Your task to perform on an android device: toggle translation in the chrome app Image 0: 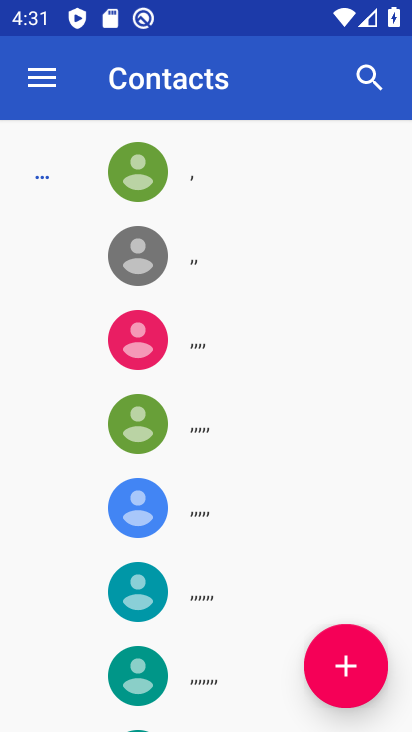
Step 0: press home button
Your task to perform on an android device: toggle translation in the chrome app Image 1: 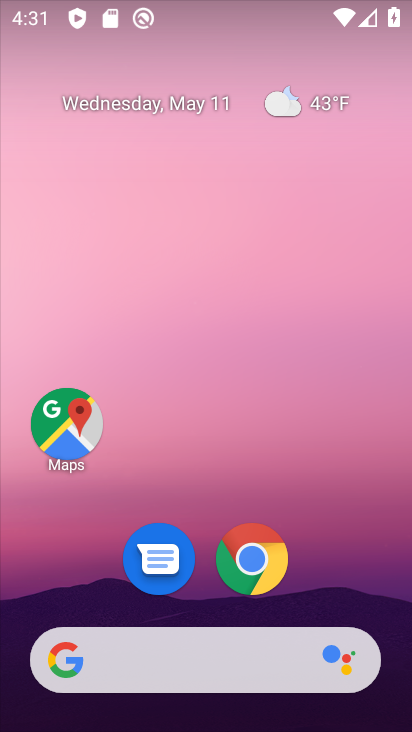
Step 1: click (266, 594)
Your task to perform on an android device: toggle translation in the chrome app Image 2: 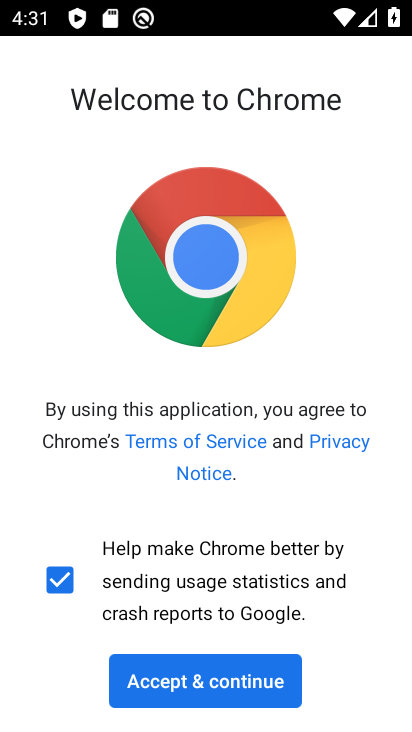
Step 2: click (193, 684)
Your task to perform on an android device: toggle translation in the chrome app Image 3: 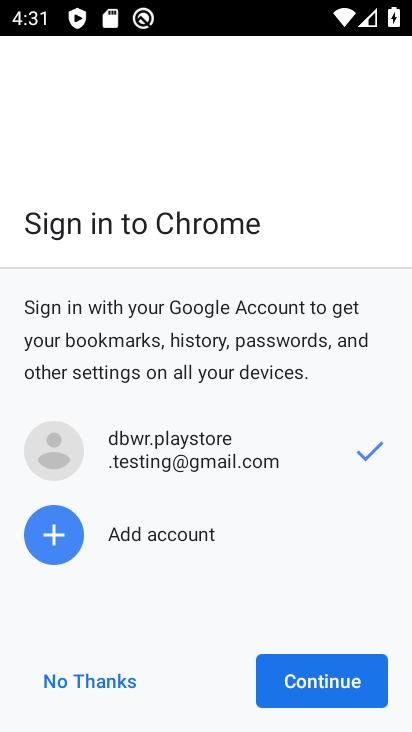
Step 3: click (279, 676)
Your task to perform on an android device: toggle translation in the chrome app Image 4: 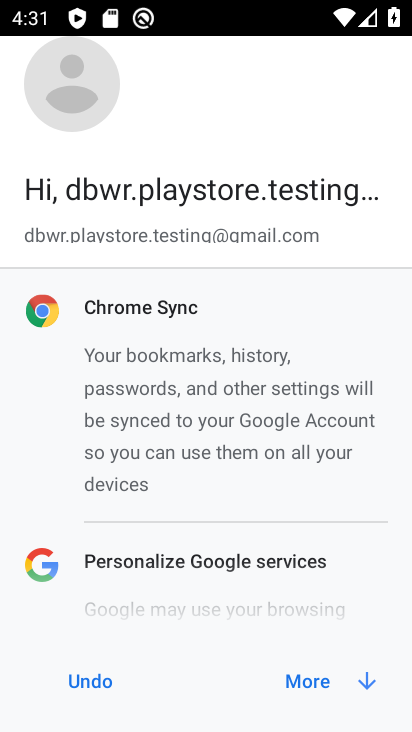
Step 4: click (301, 678)
Your task to perform on an android device: toggle translation in the chrome app Image 5: 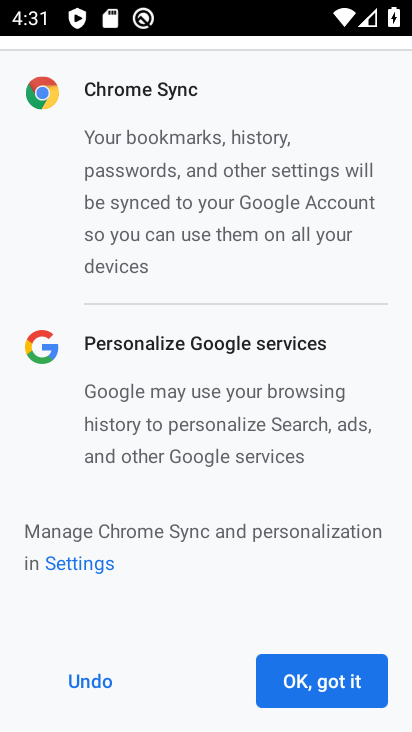
Step 5: click (301, 678)
Your task to perform on an android device: toggle translation in the chrome app Image 6: 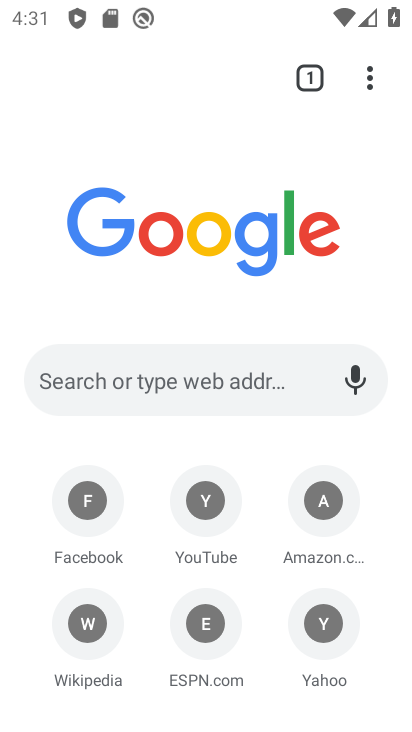
Step 6: click (374, 82)
Your task to perform on an android device: toggle translation in the chrome app Image 7: 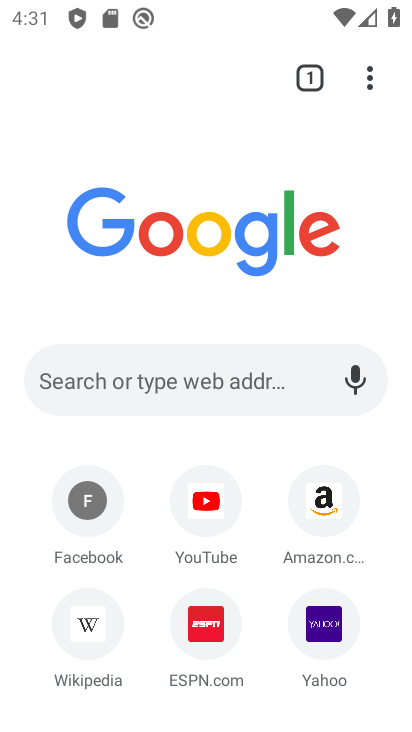
Step 7: click (368, 76)
Your task to perform on an android device: toggle translation in the chrome app Image 8: 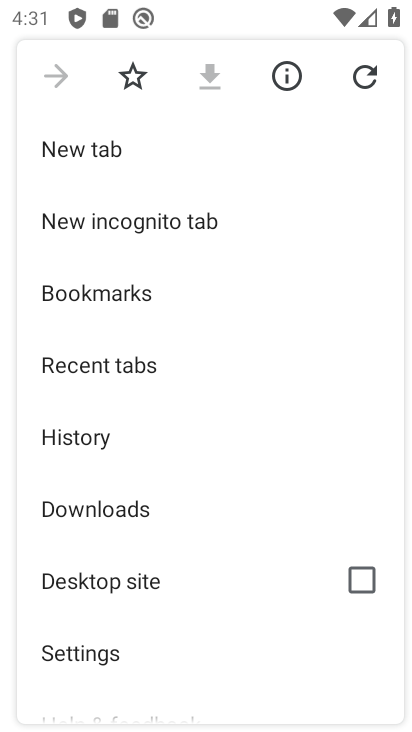
Step 8: drag from (192, 613) to (228, 403)
Your task to perform on an android device: toggle translation in the chrome app Image 9: 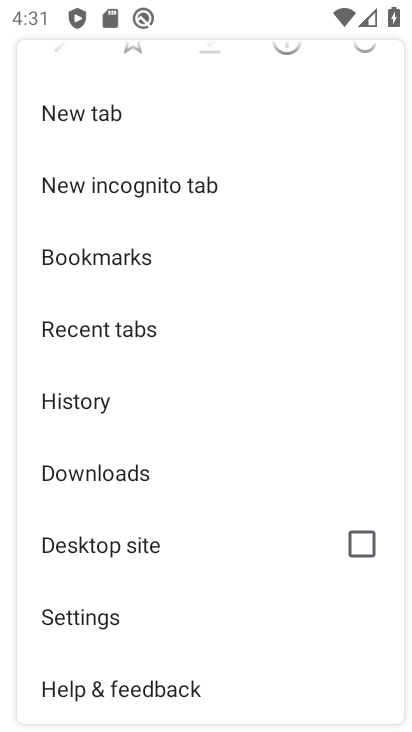
Step 9: click (79, 613)
Your task to perform on an android device: toggle translation in the chrome app Image 10: 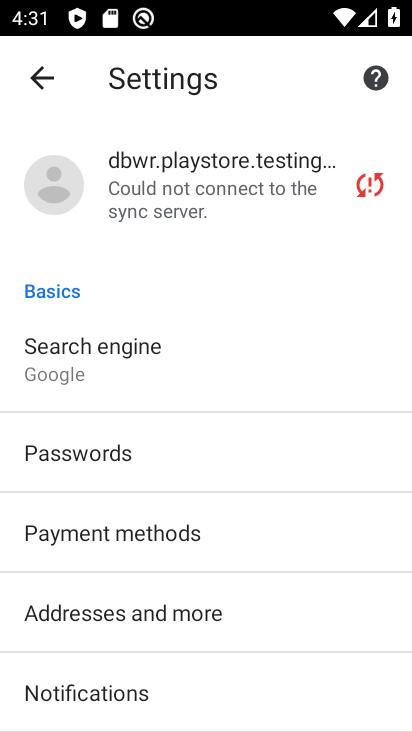
Step 10: drag from (196, 645) to (324, 192)
Your task to perform on an android device: toggle translation in the chrome app Image 11: 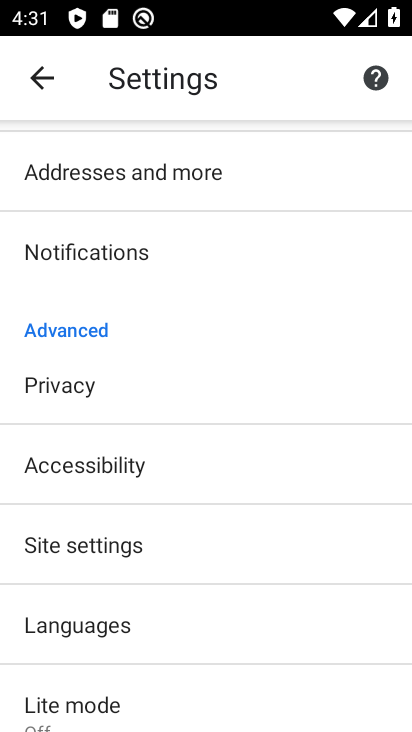
Step 11: click (84, 628)
Your task to perform on an android device: toggle translation in the chrome app Image 12: 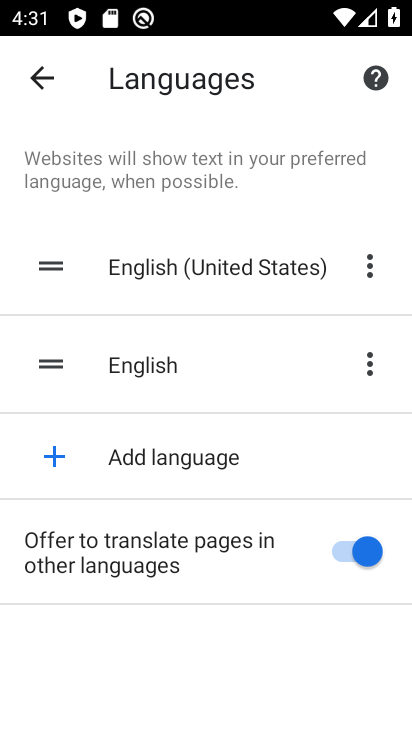
Step 12: click (342, 552)
Your task to perform on an android device: toggle translation in the chrome app Image 13: 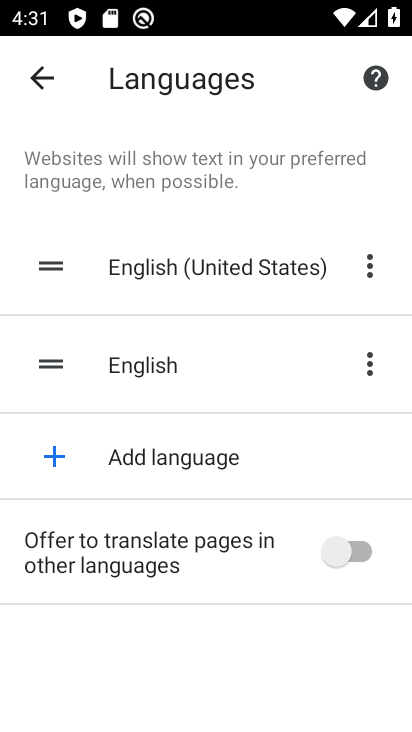
Step 13: task complete